Your task to perform on an android device: Toggle the flashlight Image 0: 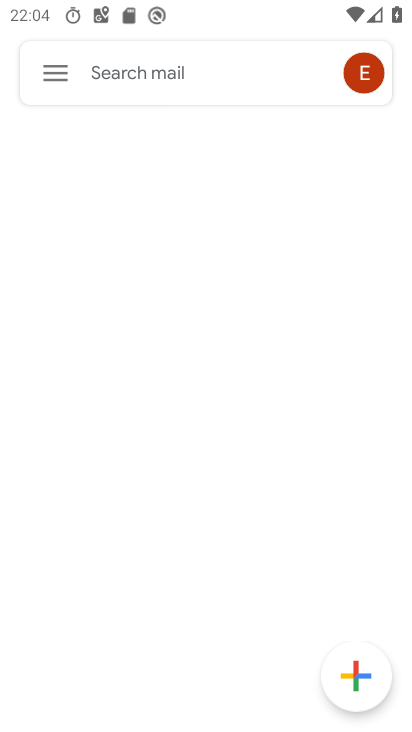
Step 0: press home button
Your task to perform on an android device: Toggle the flashlight Image 1: 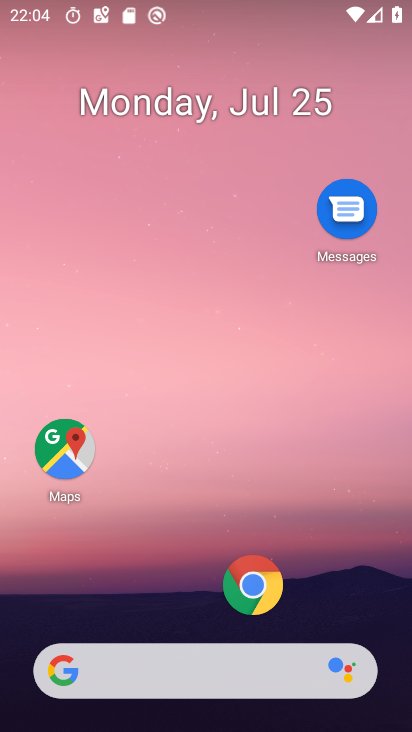
Step 1: task complete